Your task to perform on an android device: open app "Gmail" Image 0: 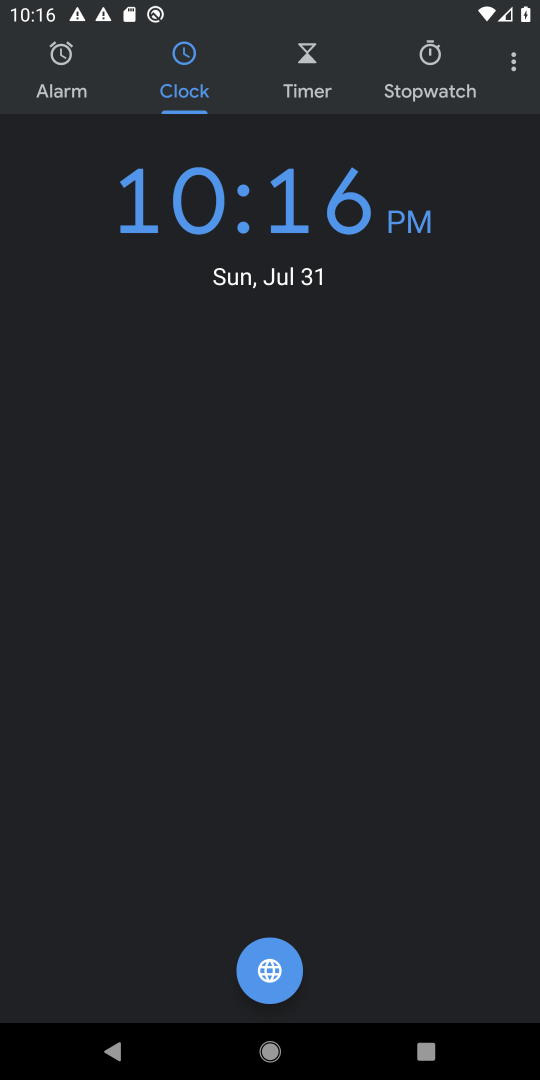
Step 0: press home button
Your task to perform on an android device: open app "Gmail" Image 1: 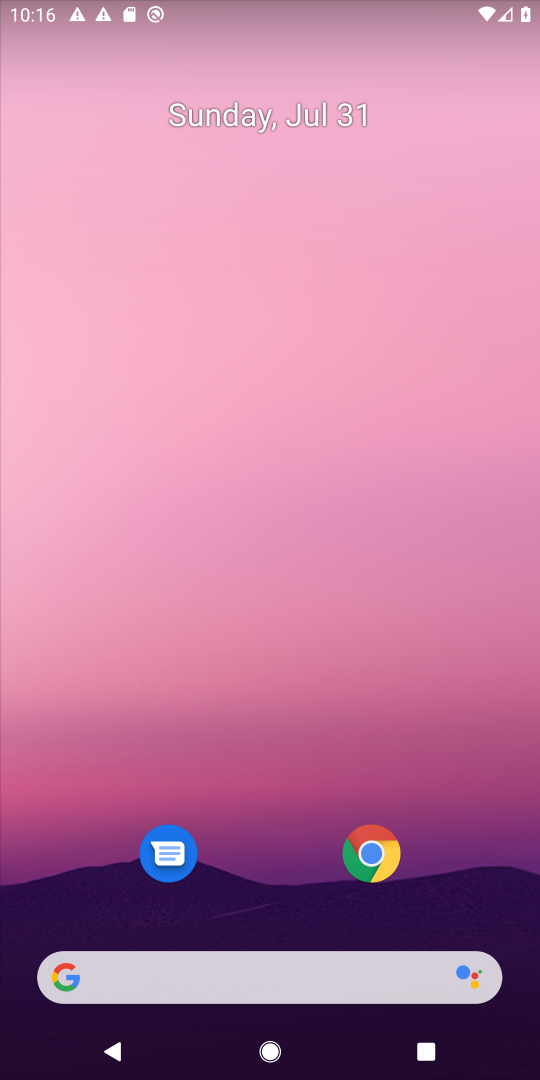
Step 1: drag from (306, 1068) to (303, 124)
Your task to perform on an android device: open app "Gmail" Image 2: 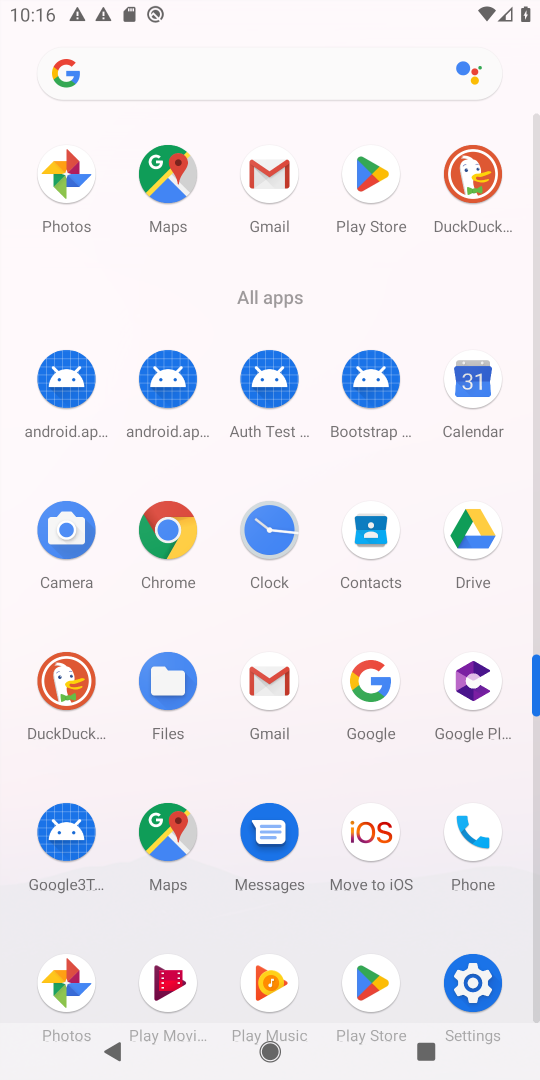
Step 2: click (275, 680)
Your task to perform on an android device: open app "Gmail" Image 3: 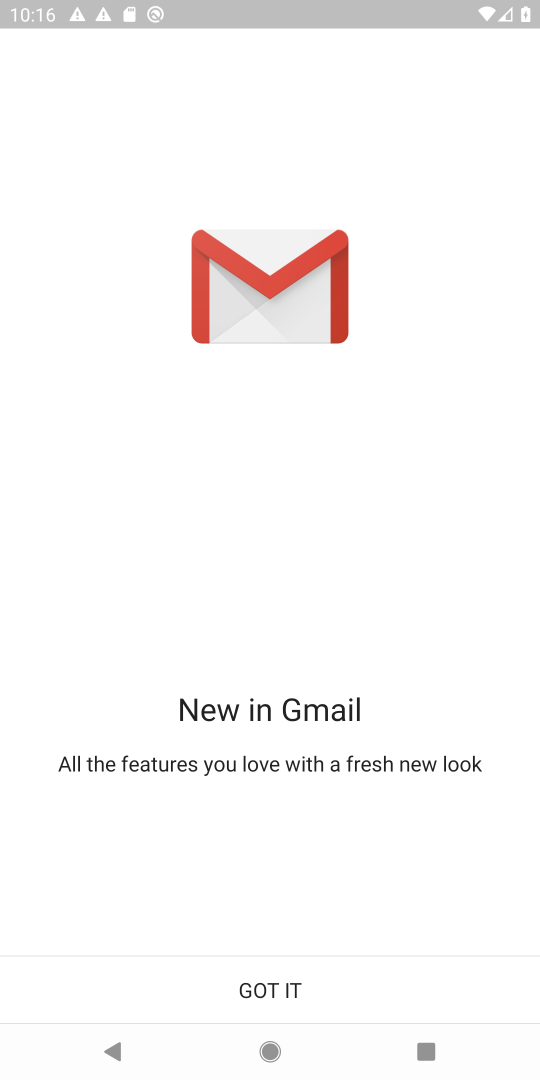
Step 3: task complete